Your task to perform on an android device: change the upload size in google photos Image 0: 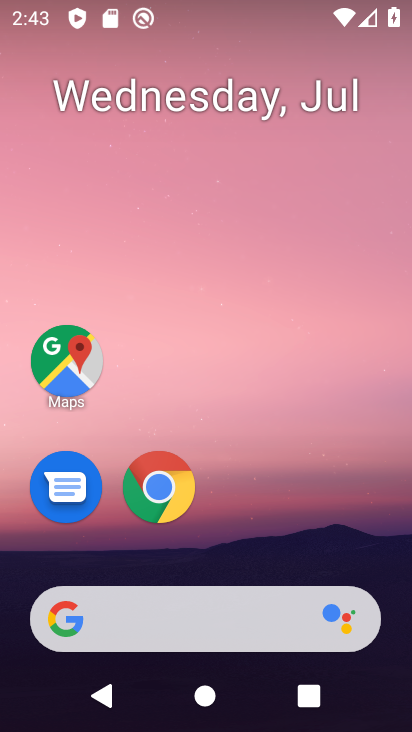
Step 0: drag from (392, 571) to (354, 196)
Your task to perform on an android device: change the upload size in google photos Image 1: 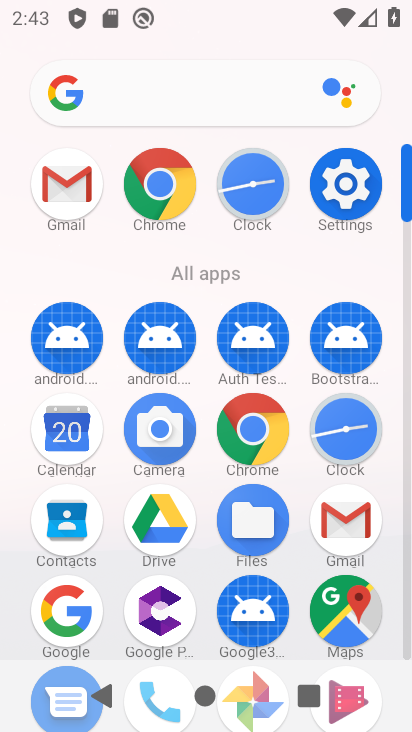
Step 1: click (406, 637)
Your task to perform on an android device: change the upload size in google photos Image 2: 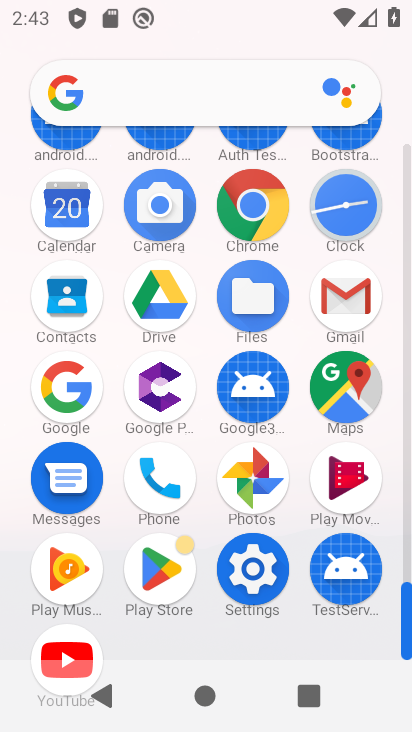
Step 2: click (252, 472)
Your task to perform on an android device: change the upload size in google photos Image 3: 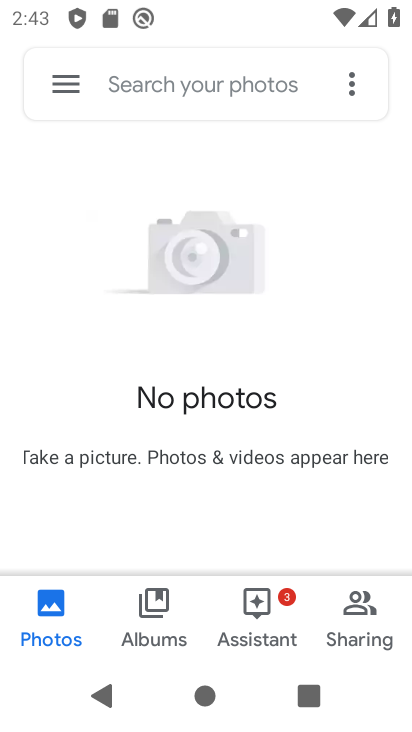
Step 3: click (73, 87)
Your task to perform on an android device: change the upload size in google photos Image 4: 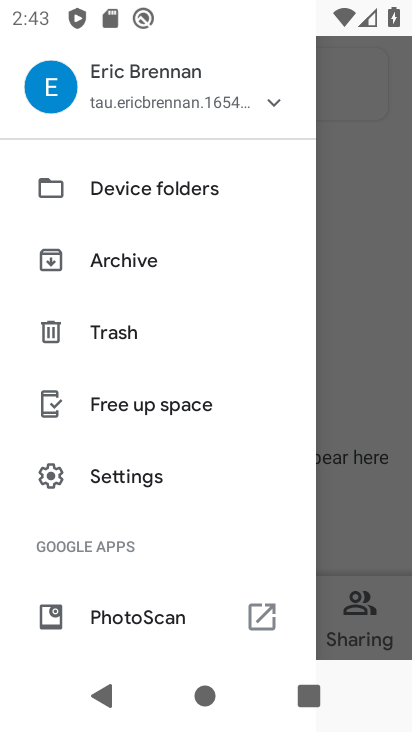
Step 4: click (155, 479)
Your task to perform on an android device: change the upload size in google photos Image 5: 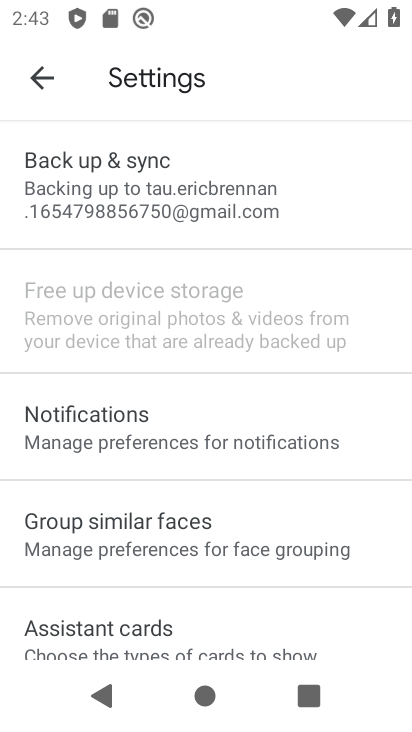
Step 5: click (258, 220)
Your task to perform on an android device: change the upload size in google photos Image 6: 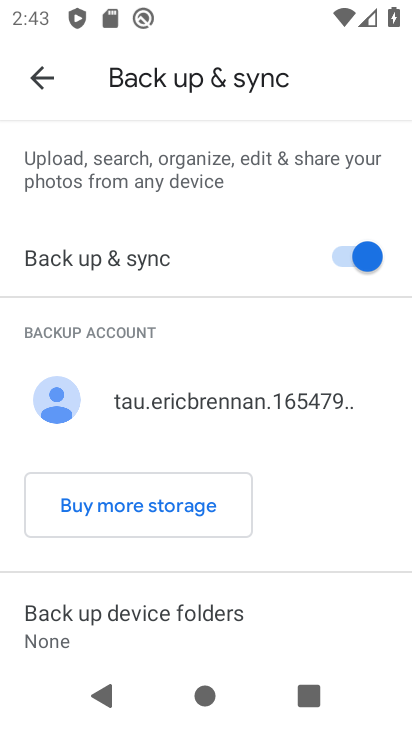
Step 6: drag from (325, 592) to (287, 244)
Your task to perform on an android device: change the upload size in google photos Image 7: 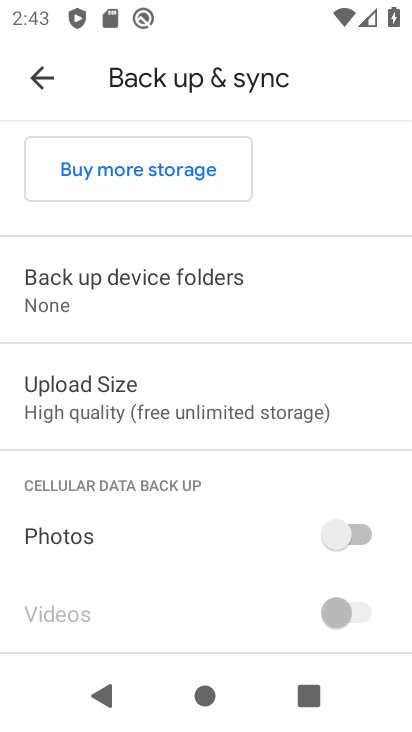
Step 7: click (291, 386)
Your task to perform on an android device: change the upload size in google photos Image 8: 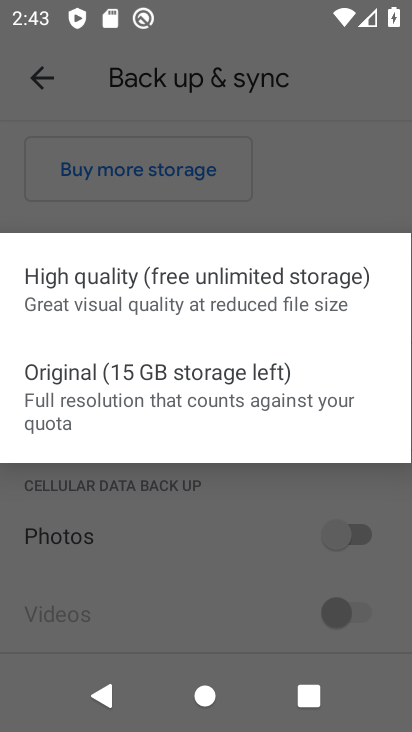
Step 8: click (265, 391)
Your task to perform on an android device: change the upload size in google photos Image 9: 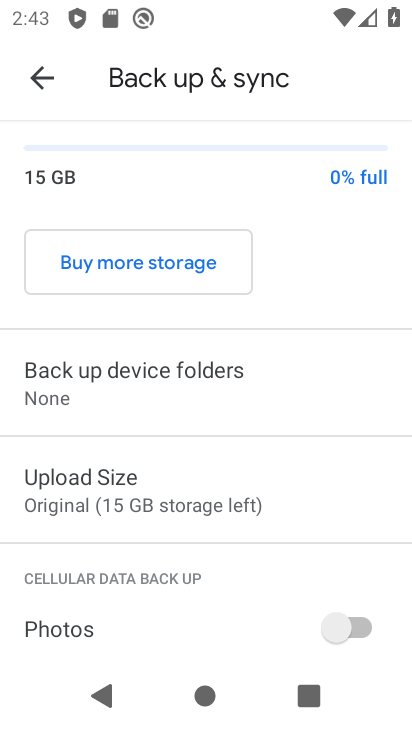
Step 9: task complete